Your task to perform on an android device: Go to privacy settings Image 0: 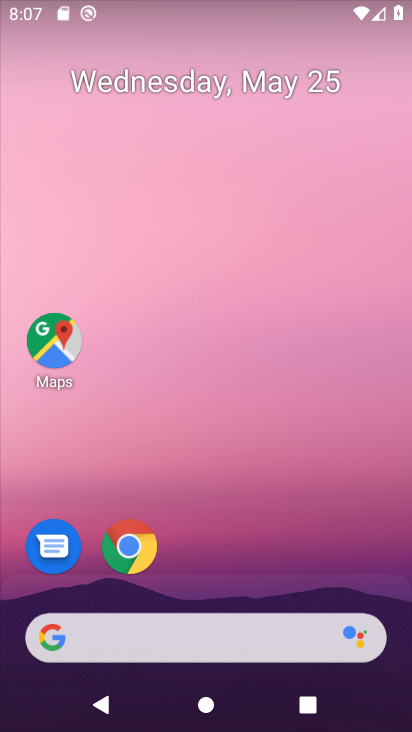
Step 0: click (125, 561)
Your task to perform on an android device: Go to privacy settings Image 1: 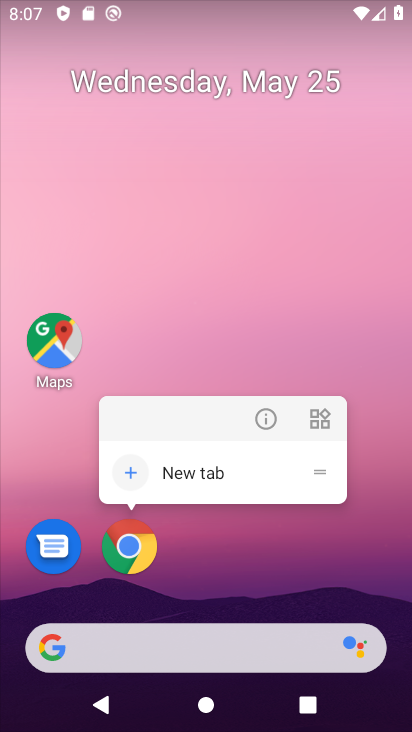
Step 1: click (117, 538)
Your task to perform on an android device: Go to privacy settings Image 2: 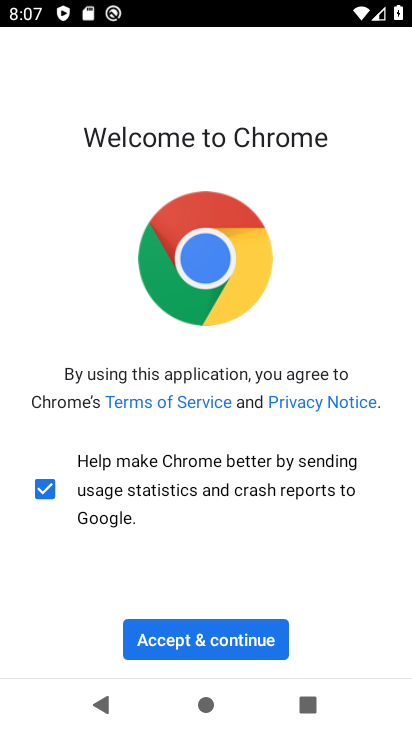
Step 2: click (227, 633)
Your task to perform on an android device: Go to privacy settings Image 3: 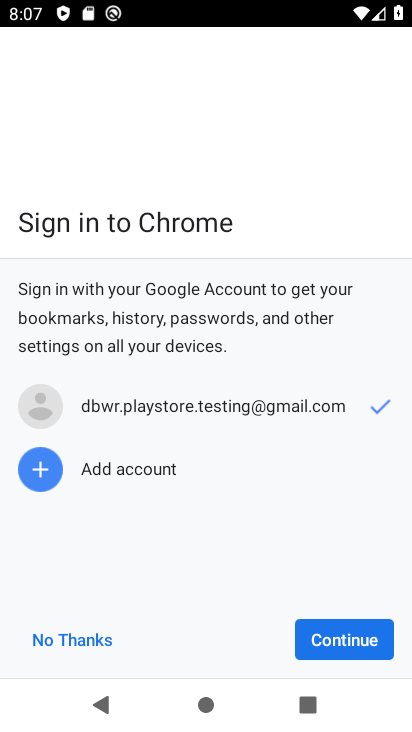
Step 3: click (330, 650)
Your task to perform on an android device: Go to privacy settings Image 4: 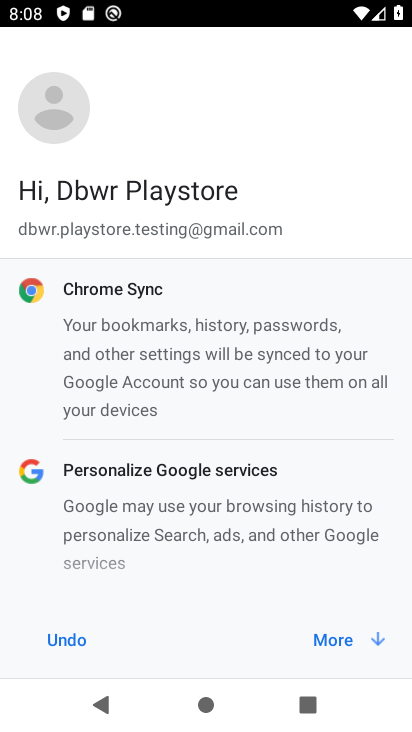
Step 4: click (333, 639)
Your task to perform on an android device: Go to privacy settings Image 5: 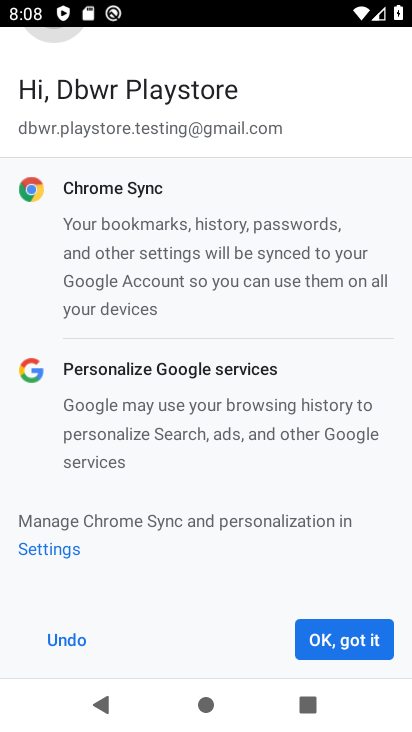
Step 5: click (334, 639)
Your task to perform on an android device: Go to privacy settings Image 6: 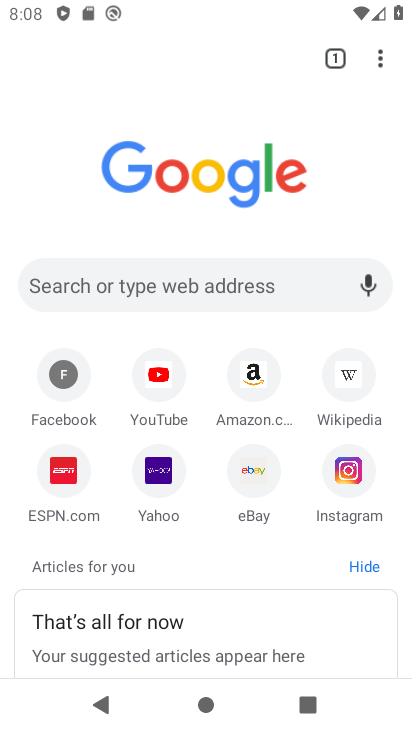
Step 6: drag from (389, 67) to (237, 498)
Your task to perform on an android device: Go to privacy settings Image 7: 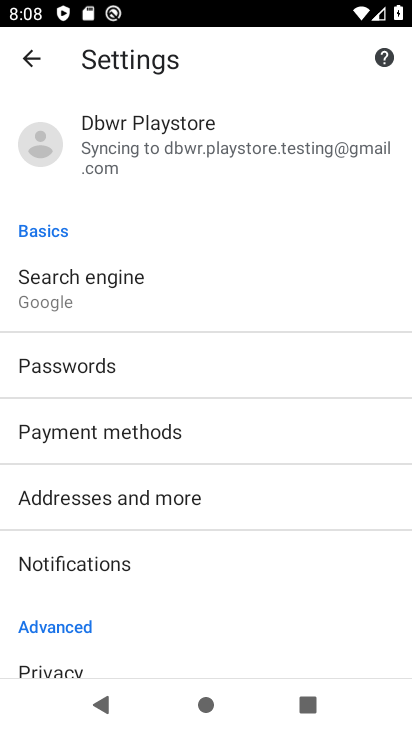
Step 7: click (110, 672)
Your task to perform on an android device: Go to privacy settings Image 8: 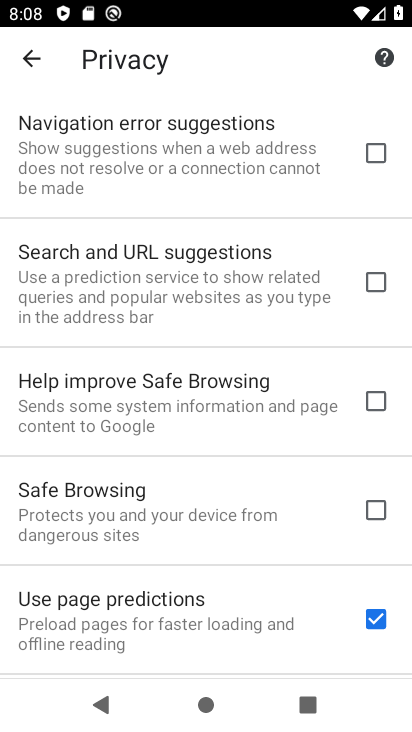
Step 8: task complete